Your task to perform on an android device: Go to wifi settings Image 0: 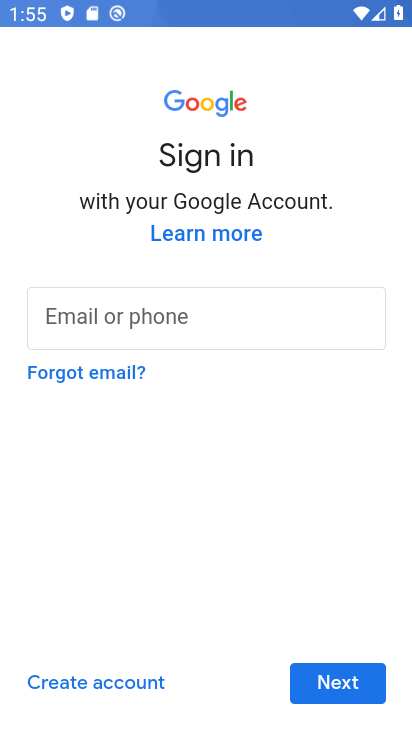
Step 0: press home button
Your task to perform on an android device: Go to wifi settings Image 1: 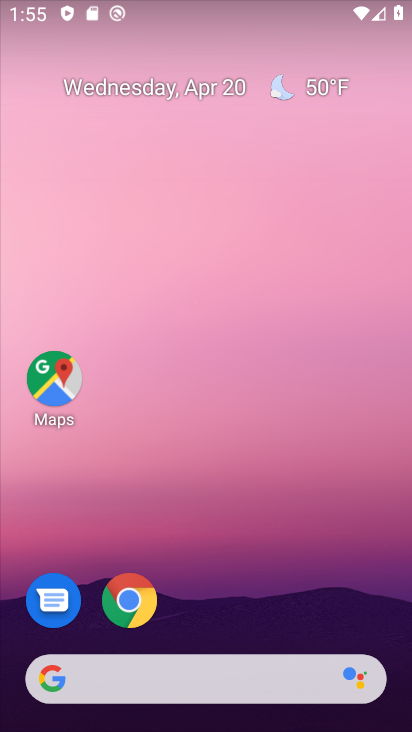
Step 1: drag from (227, 566) to (264, 20)
Your task to perform on an android device: Go to wifi settings Image 2: 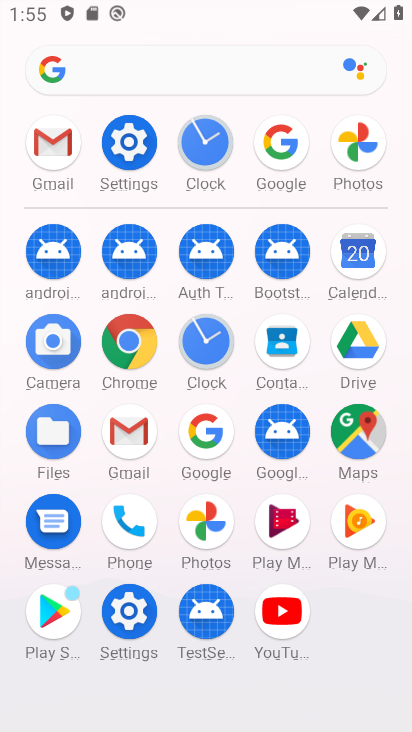
Step 2: click (137, 162)
Your task to perform on an android device: Go to wifi settings Image 3: 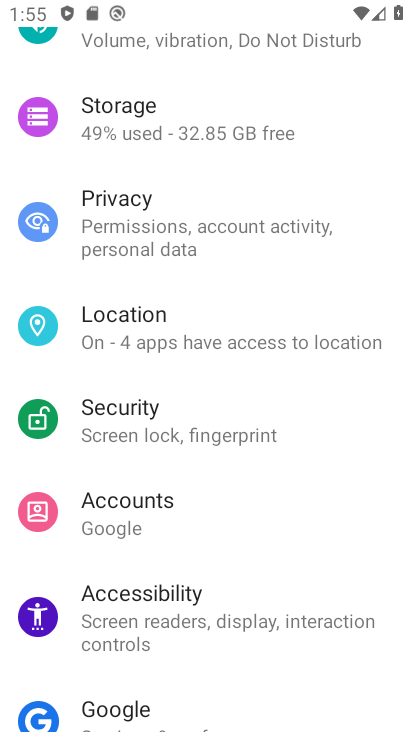
Step 3: drag from (204, 171) to (199, 719)
Your task to perform on an android device: Go to wifi settings Image 4: 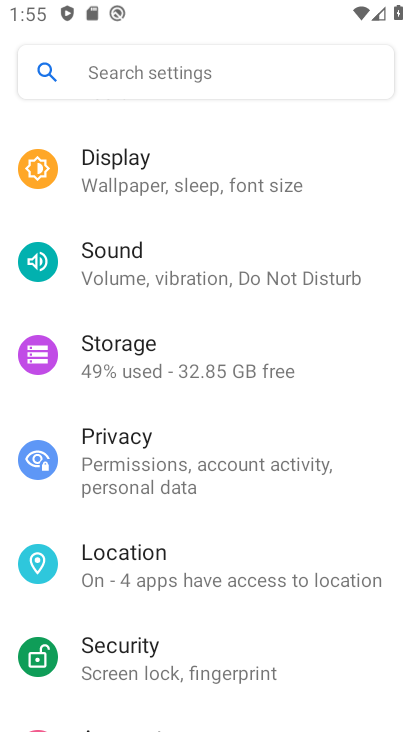
Step 4: drag from (255, 155) to (245, 671)
Your task to perform on an android device: Go to wifi settings Image 5: 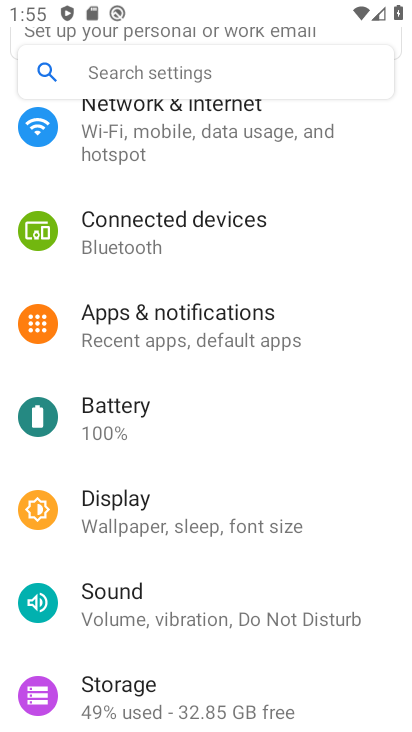
Step 5: click (235, 136)
Your task to perform on an android device: Go to wifi settings Image 6: 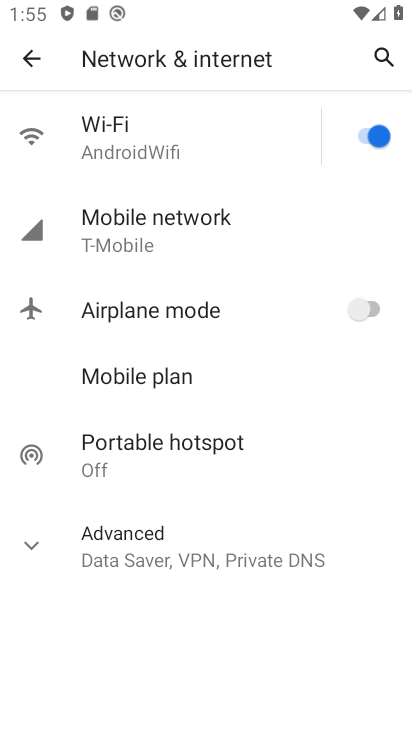
Step 6: click (235, 136)
Your task to perform on an android device: Go to wifi settings Image 7: 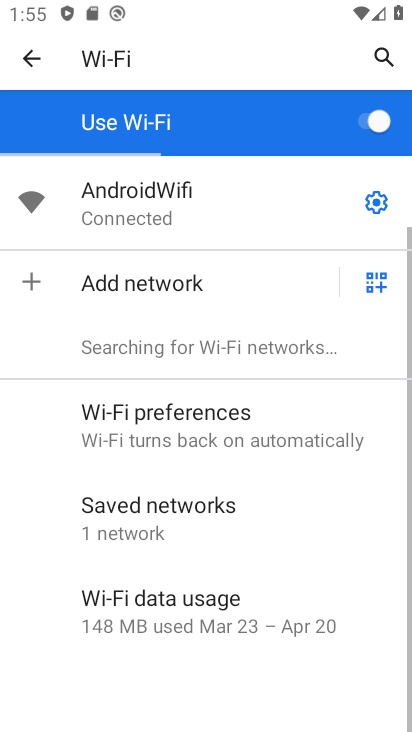
Step 7: click (368, 201)
Your task to perform on an android device: Go to wifi settings Image 8: 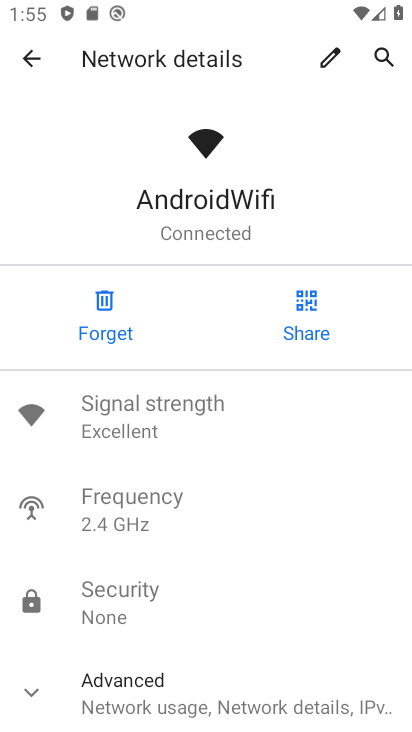
Step 8: task complete